Your task to perform on an android device: choose inbox layout in the gmail app Image 0: 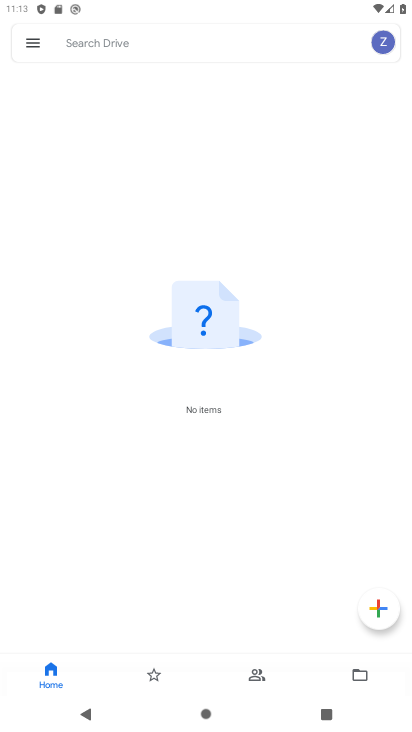
Step 0: press home button
Your task to perform on an android device: choose inbox layout in the gmail app Image 1: 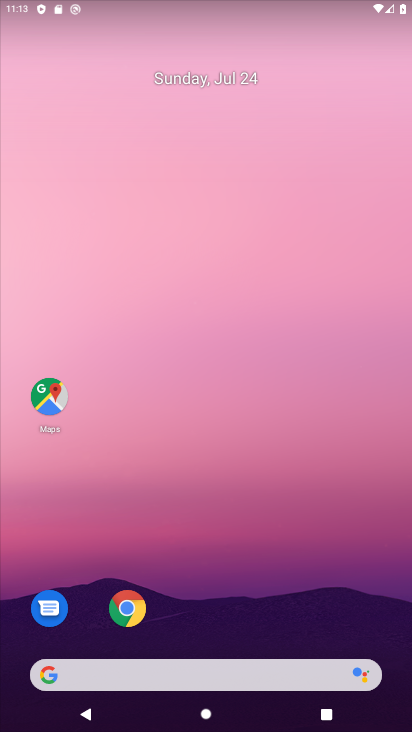
Step 1: drag from (233, 607) to (253, 18)
Your task to perform on an android device: choose inbox layout in the gmail app Image 2: 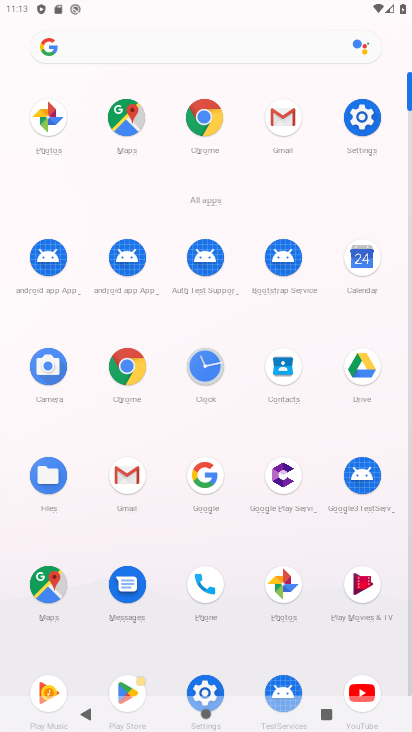
Step 2: click (292, 122)
Your task to perform on an android device: choose inbox layout in the gmail app Image 3: 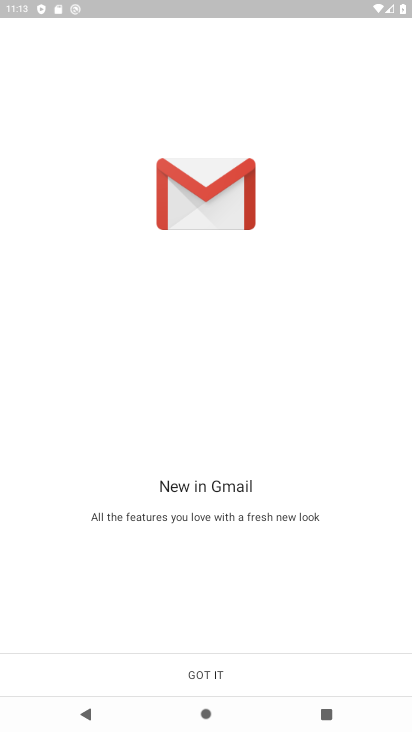
Step 3: click (197, 670)
Your task to perform on an android device: choose inbox layout in the gmail app Image 4: 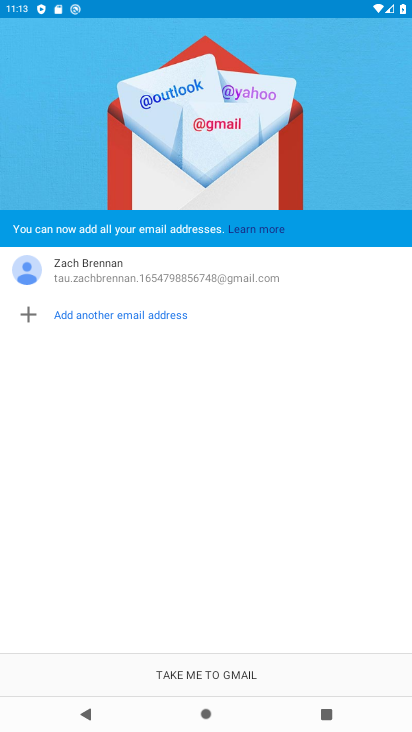
Step 4: click (166, 672)
Your task to perform on an android device: choose inbox layout in the gmail app Image 5: 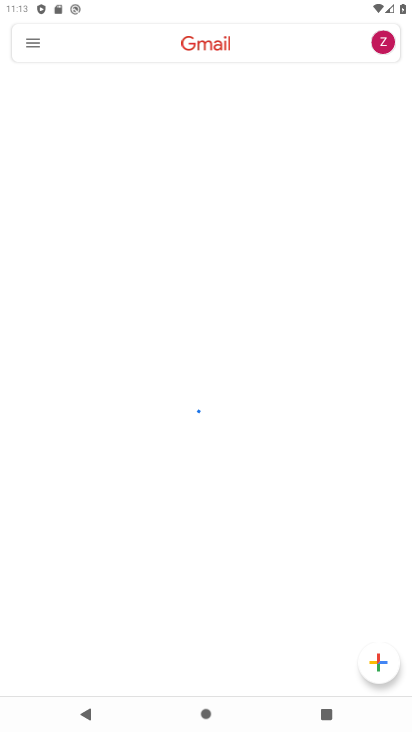
Step 5: click (26, 39)
Your task to perform on an android device: choose inbox layout in the gmail app Image 6: 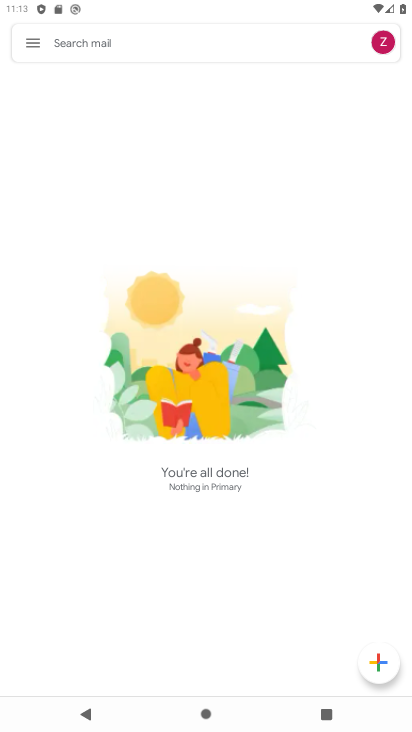
Step 6: click (28, 42)
Your task to perform on an android device: choose inbox layout in the gmail app Image 7: 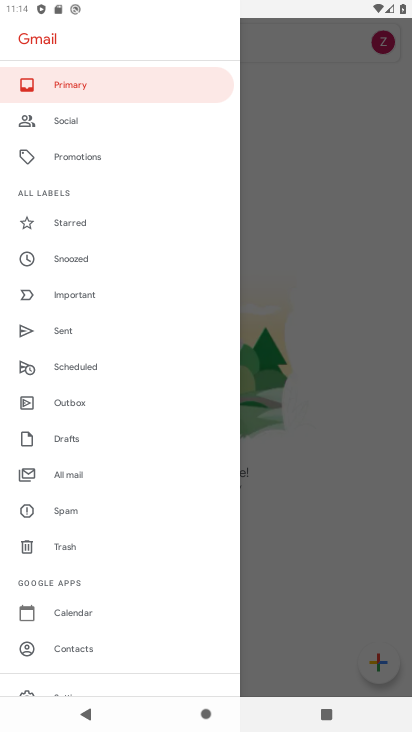
Step 7: drag from (97, 596) to (102, 293)
Your task to perform on an android device: choose inbox layout in the gmail app Image 8: 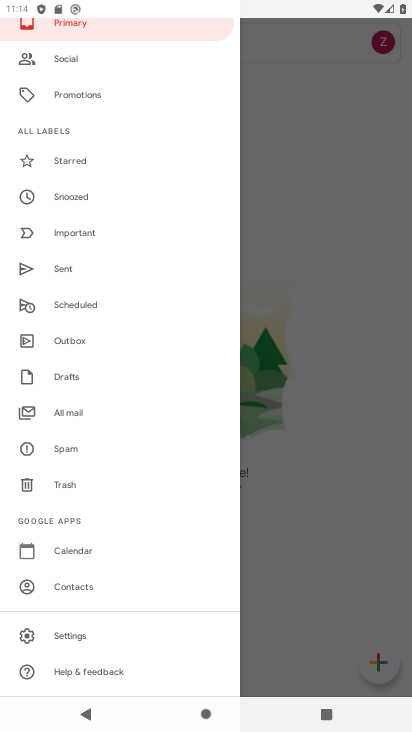
Step 8: click (80, 633)
Your task to perform on an android device: choose inbox layout in the gmail app Image 9: 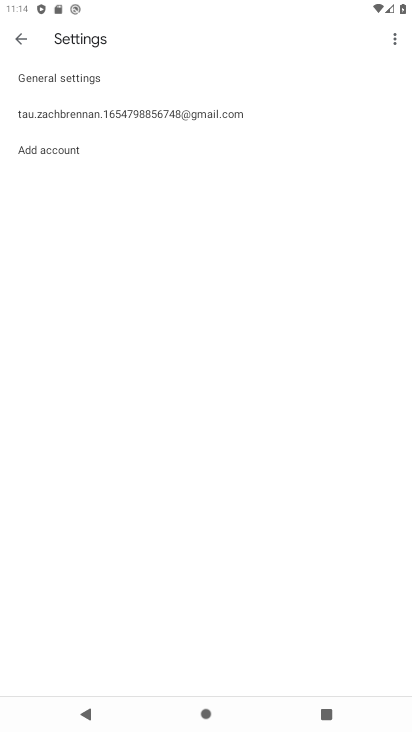
Step 9: click (59, 115)
Your task to perform on an android device: choose inbox layout in the gmail app Image 10: 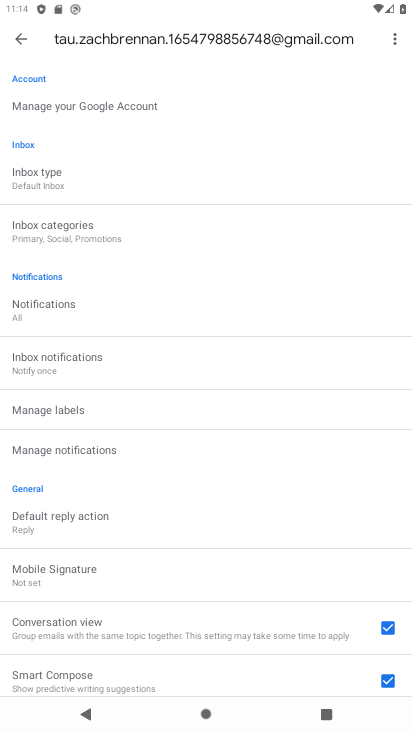
Step 10: click (46, 186)
Your task to perform on an android device: choose inbox layout in the gmail app Image 11: 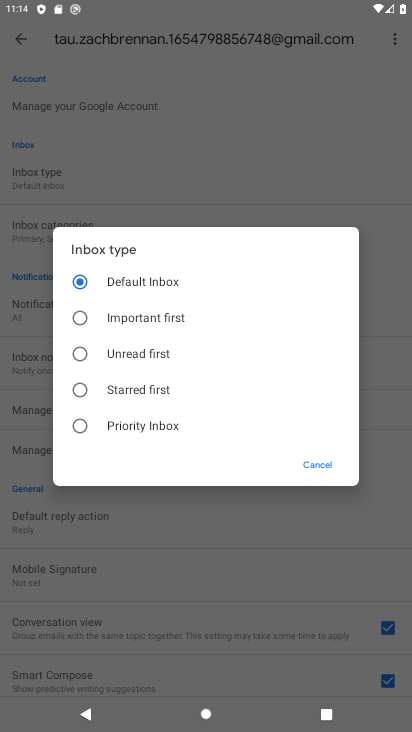
Step 11: click (80, 359)
Your task to perform on an android device: choose inbox layout in the gmail app Image 12: 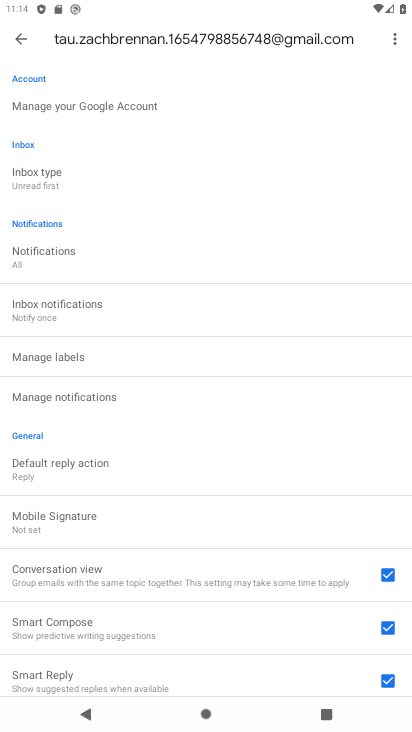
Step 12: task complete